Your task to perform on an android device: Open calendar and show me the fourth week of next month Image 0: 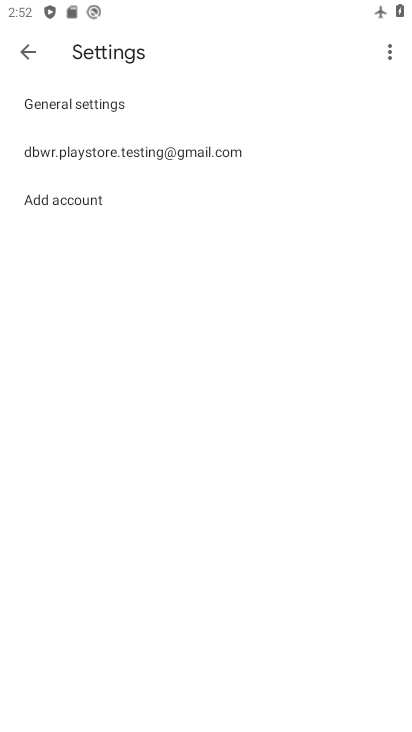
Step 0: press home button
Your task to perform on an android device: Open calendar and show me the fourth week of next month Image 1: 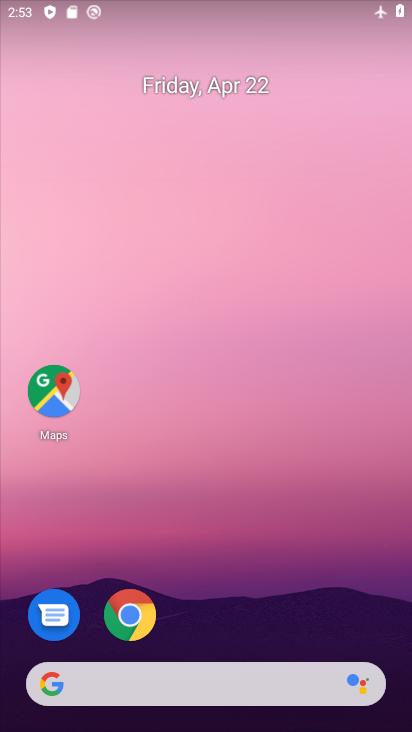
Step 1: drag from (286, 629) to (282, 184)
Your task to perform on an android device: Open calendar and show me the fourth week of next month Image 2: 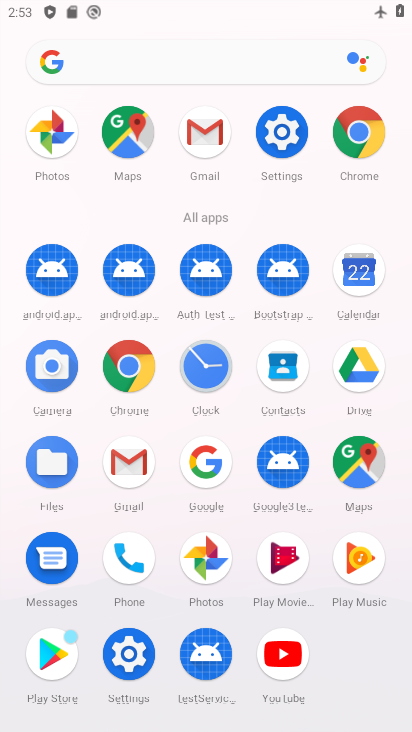
Step 2: click (355, 289)
Your task to perform on an android device: Open calendar and show me the fourth week of next month Image 3: 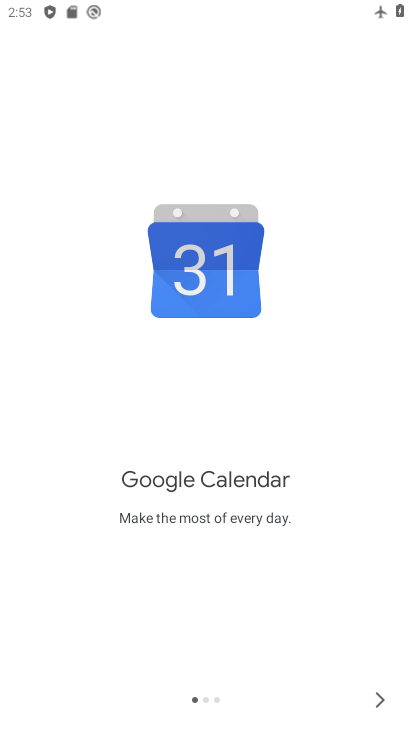
Step 3: click (382, 704)
Your task to perform on an android device: Open calendar and show me the fourth week of next month Image 4: 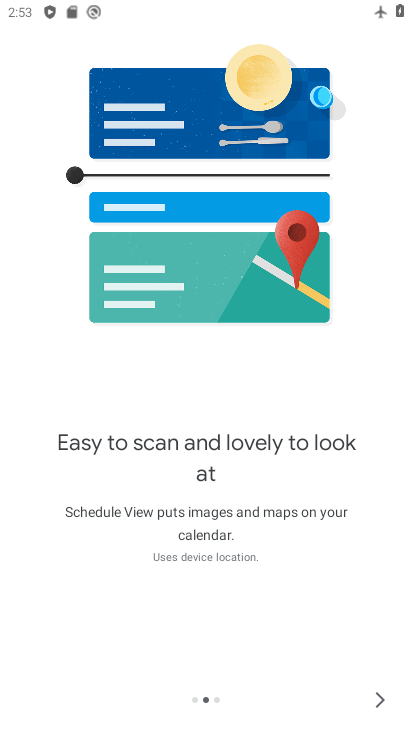
Step 4: click (382, 704)
Your task to perform on an android device: Open calendar and show me the fourth week of next month Image 5: 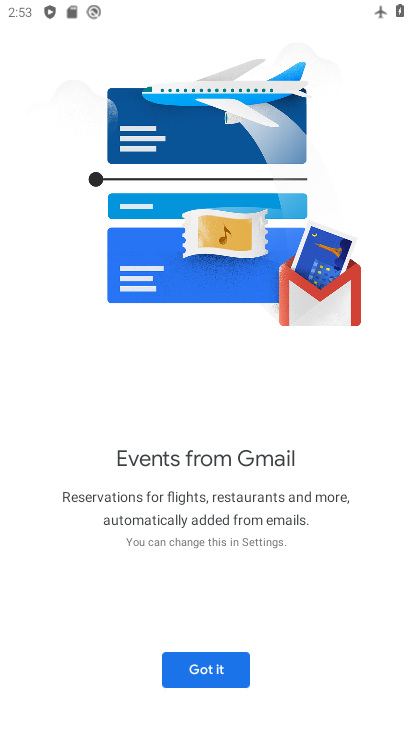
Step 5: click (229, 671)
Your task to perform on an android device: Open calendar and show me the fourth week of next month Image 6: 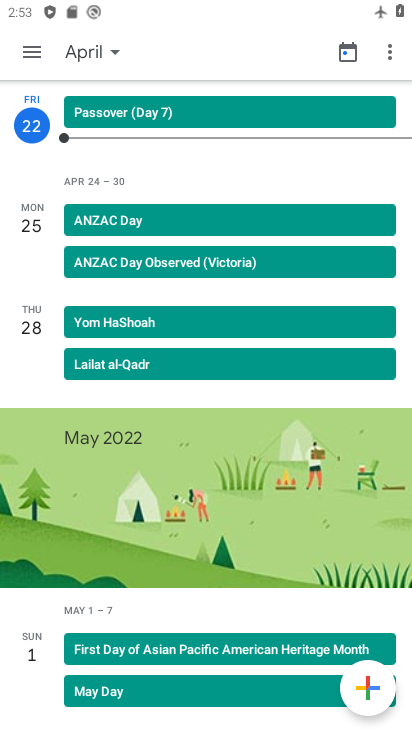
Step 6: click (22, 58)
Your task to perform on an android device: Open calendar and show me the fourth week of next month Image 7: 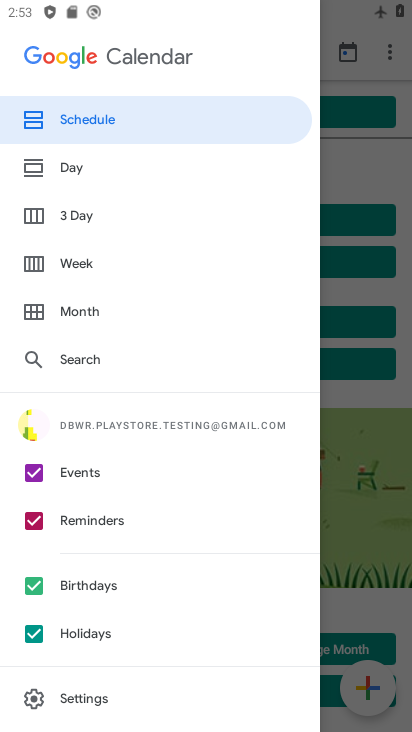
Step 7: click (130, 309)
Your task to perform on an android device: Open calendar and show me the fourth week of next month Image 8: 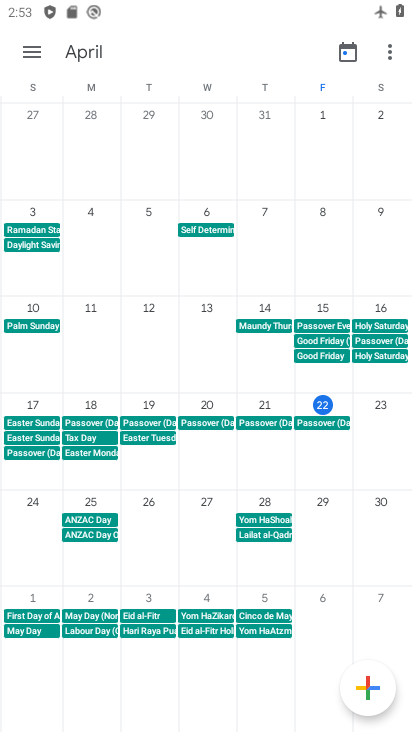
Step 8: click (27, 51)
Your task to perform on an android device: Open calendar and show me the fourth week of next month Image 9: 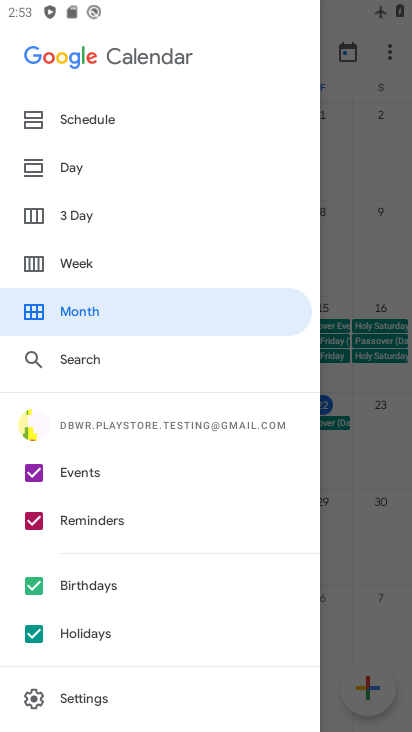
Step 9: click (134, 270)
Your task to perform on an android device: Open calendar and show me the fourth week of next month Image 10: 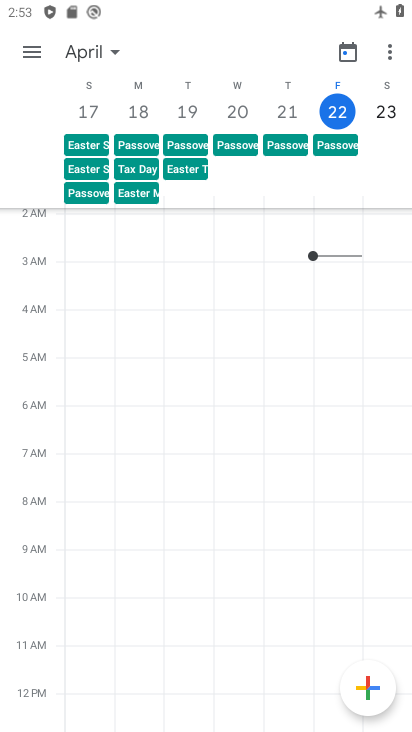
Step 10: click (117, 48)
Your task to perform on an android device: Open calendar and show me the fourth week of next month Image 11: 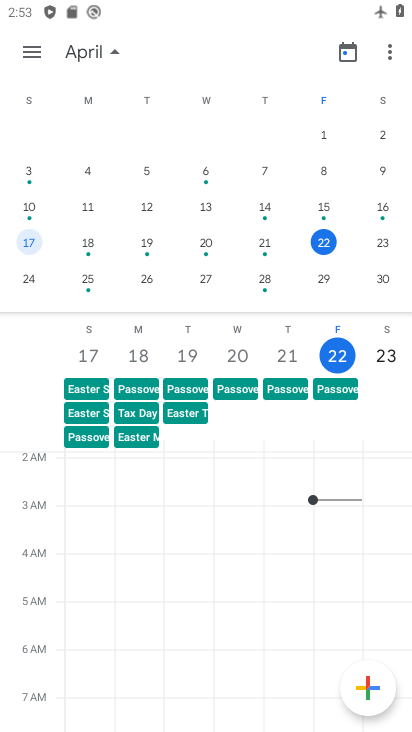
Step 11: drag from (391, 253) to (26, 247)
Your task to perform on an android device: Open calendar and show me the fourth week of next month Image 12: 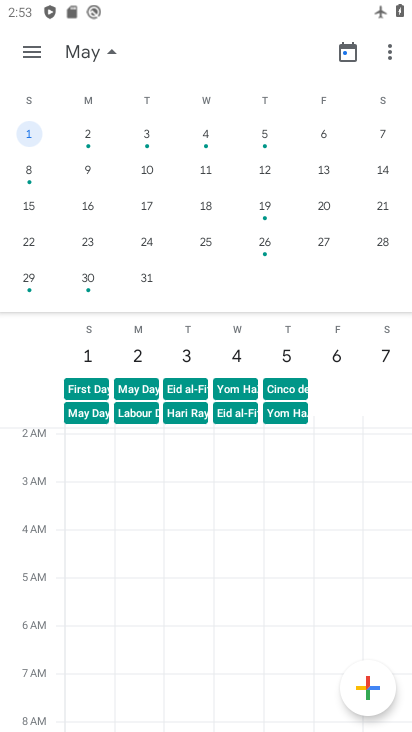
Step 12: click (91, 244)
Your task to perform on an android device: Open calendar and show me the fourth week of next month Image 13: 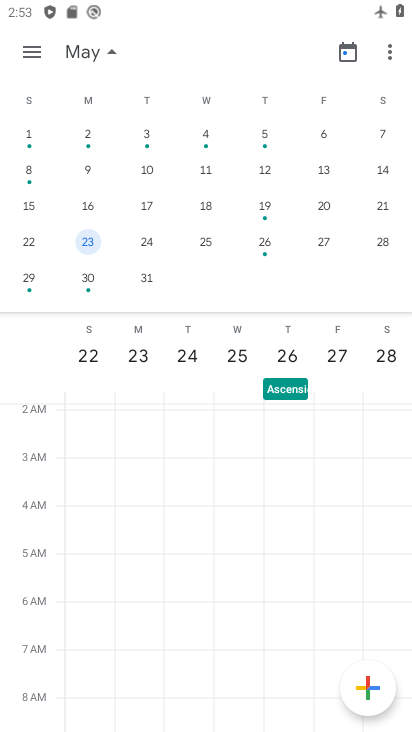
Step 13: click (117, 48)
Your task to perform on an android device: Open calendar and show me the fourth week of next month Image 14: 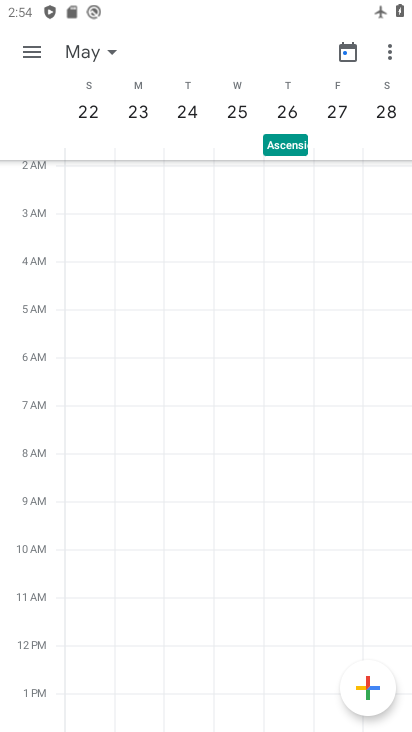
Step 14: task complete